Your task to perform on an android device: allow cookies in the chrome app Image 0: 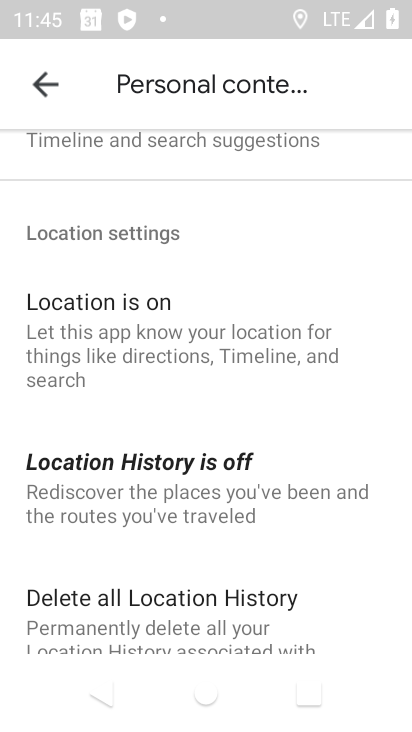
Step 0: press back button
Your task to perform on an android device: allow cookies in the chrome app Image 1: 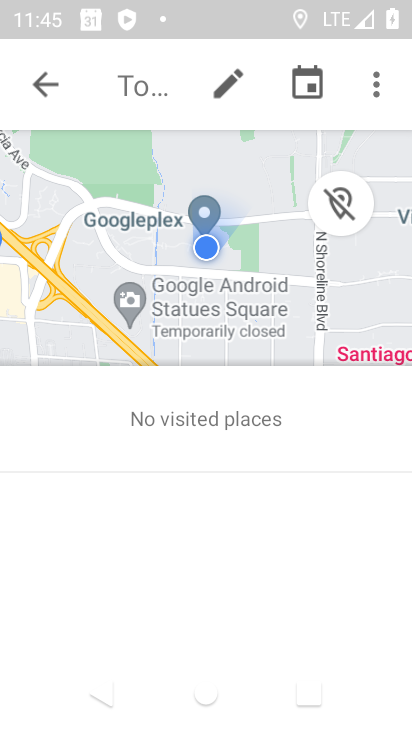
Step 1: press back button
Your task to perform on an android device: allow cookies in the chrome app Image 2: 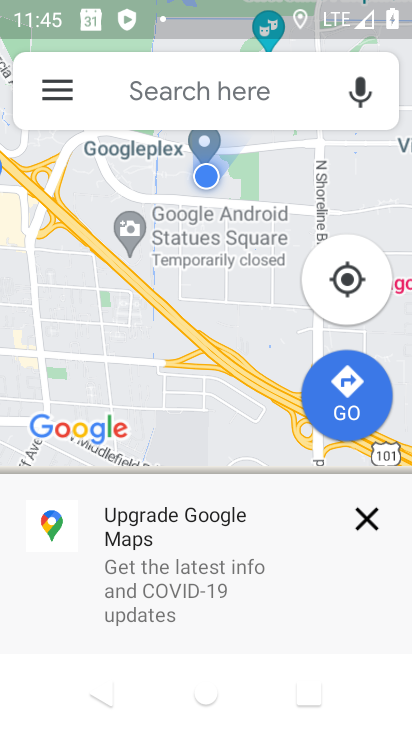
Step 2: press back button
Your task to perform on an android device: allow cookies in the chrome app Image 3: 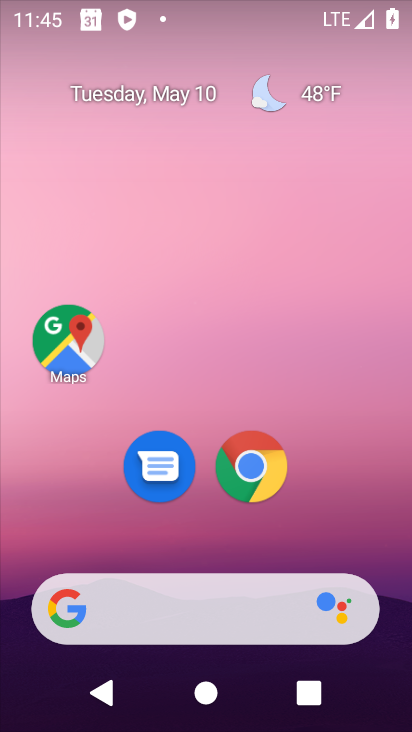
Step 3: click (234, 471)
Your task to perform on an android device: allow cookies in the chrome app Image 4: 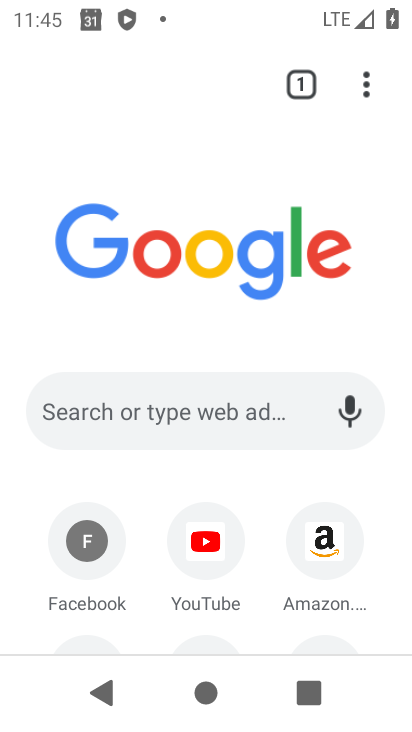
Step 4: drag from (364, 74) to (153, 513)
Your task to perform on an android device: allow cookies in the chrome app Image 5: 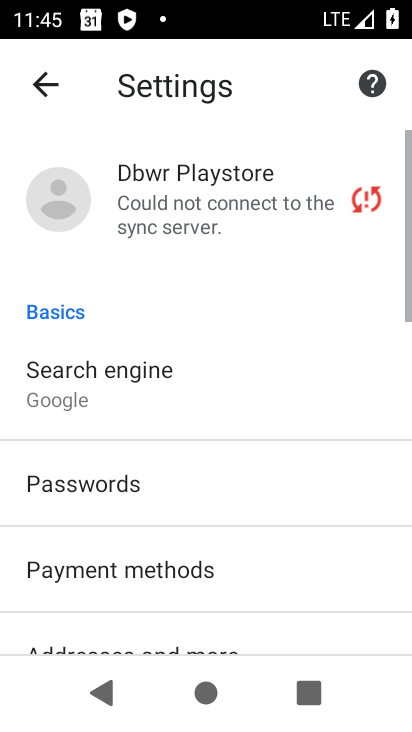
Step 5: drag from (148, 594) to (277, 86)
Your task to perform on an android device: allow cookies in the chrome app Image 6: 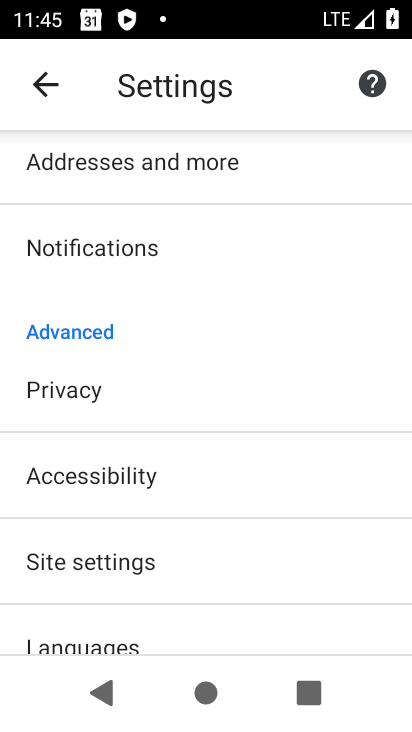
Step 6: drag from (183, 551) to (225, 354)
Your task to perform on an android device: allow cookies in the chrome app Image 7: 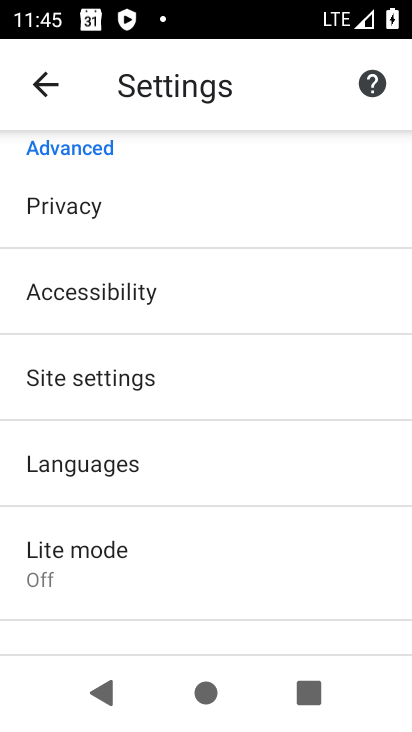
Step 7: click (113, 378)
Your task to perform on an android device: allow cookies in the chrome app Image 8: 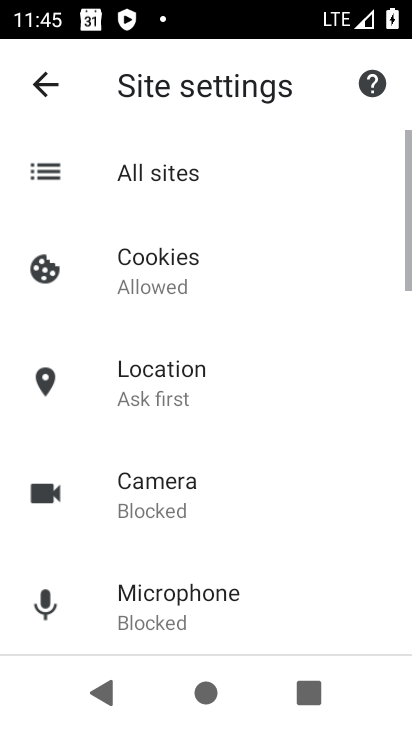
Step 8: click (182, 264)
Your task to perform on an android device: allow cookies in the chrome app Image 9: 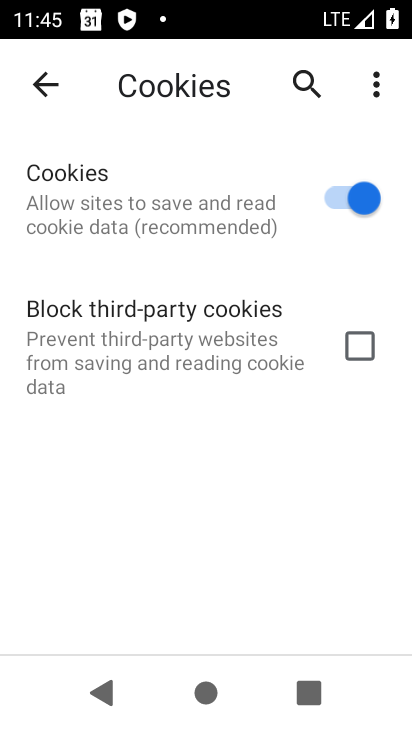
Step 9: task complete